Your task to perform on an android device: Show me the alarms in the clock app Image 0: 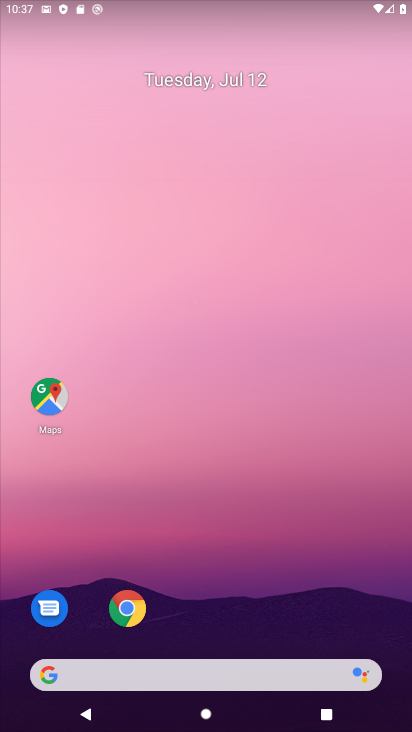
Step 0: drag from (229, 636) to (205, 122)
Your task to perform on an android device: Show me the alarms in the clock app Image 1: 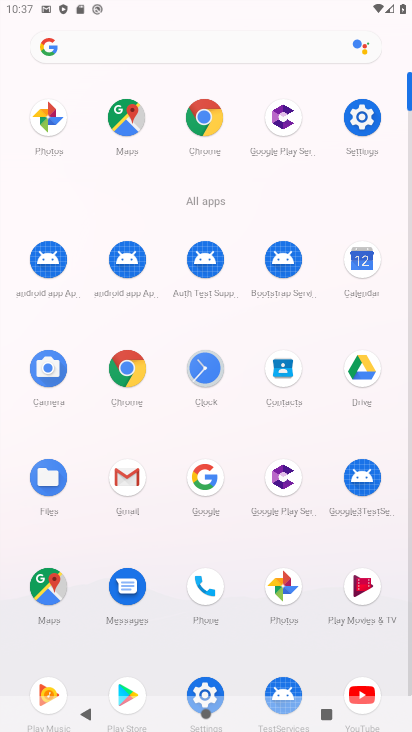
Step 1: click (214, 377)
Your task to perform on an android device: Show me the alarms in the clock app Image 2: 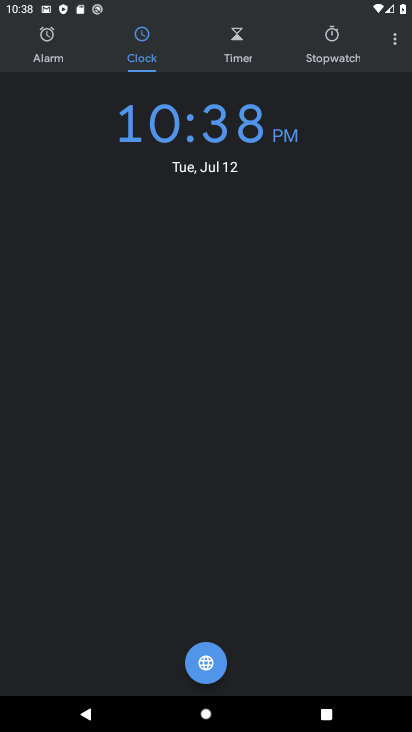
Step 2: click (52, 21)
Your task to perform on an android device: Show me the alarms in the clock app Image 3: 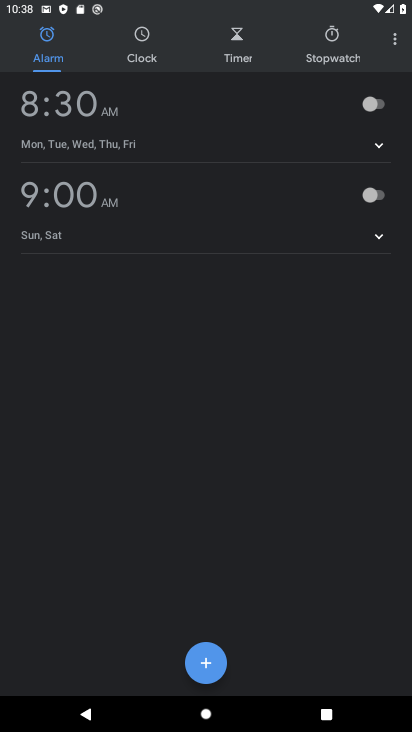
Step 3: task complete